Your task to perform on an android device: Open the map Image 0: 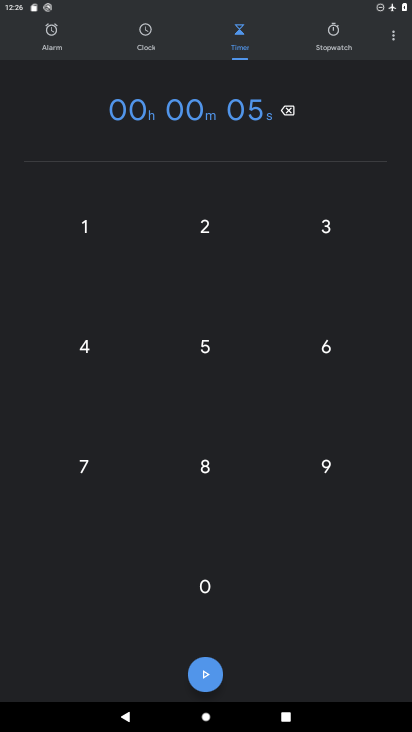
Step 0: press home button
Your task to perform on an android device: Open the map Image 1: 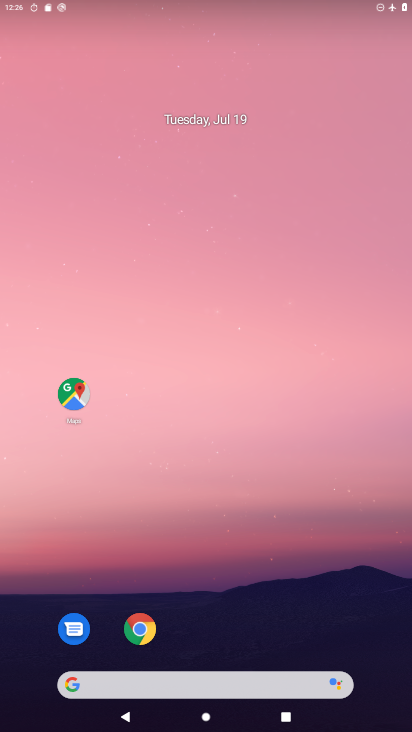
Step 1: drag from (329, 612) to (258, 65)
Your task to perform on an android device: Open the map Image 2: 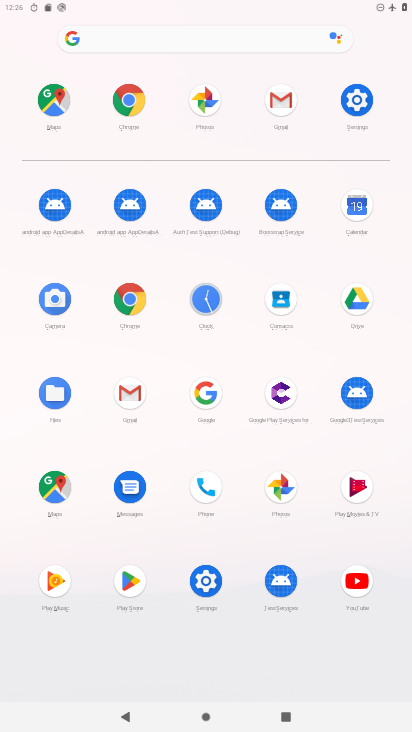
Step 2: click (43, 112)
Your task to perform on an android device: Open the map Image 3: 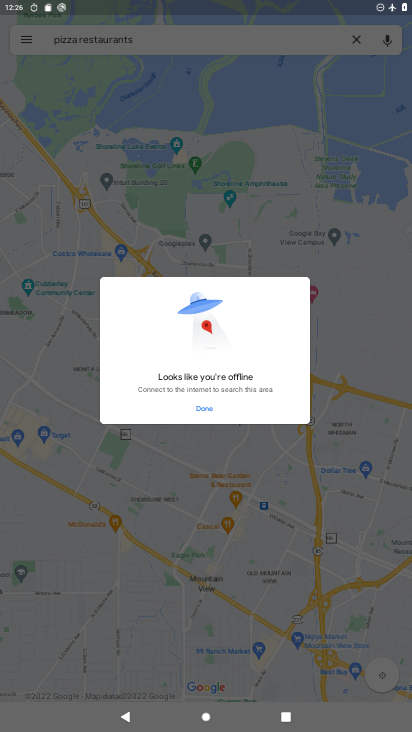
Step 3: task complete